Your task to perform on an android device: What's the weather today? Image 0: 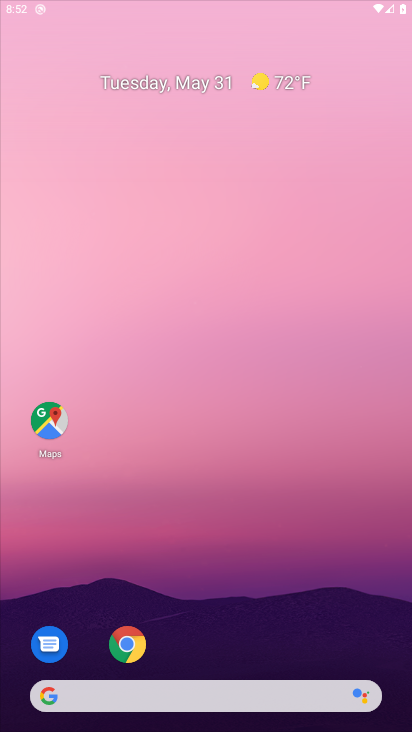
Step 0: press home button
Your task to perform on an android device: What's the weather today? Image 1: 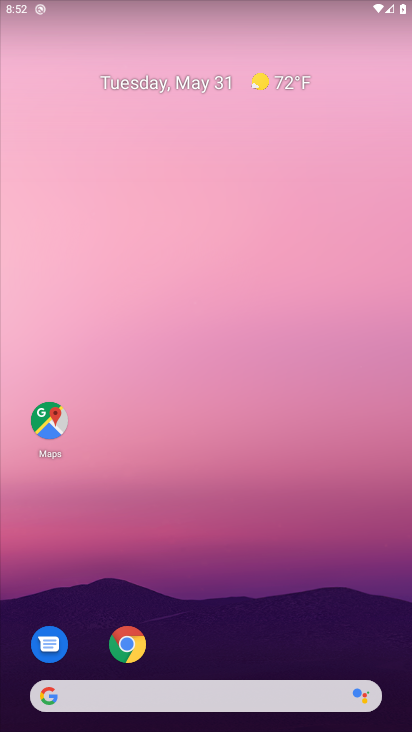
Step 1: click (290, 85)
Your task to perform on an android device: What's the weather today? Image 2: 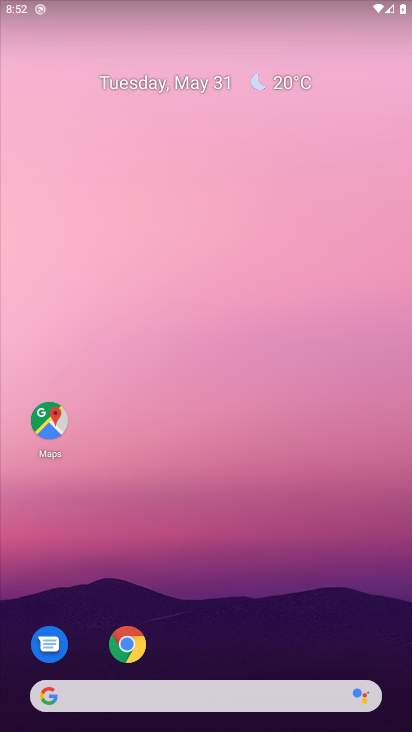
Step 2: click (280, 77)
Your task to perform on an android device: What's the weather today? Image 3: 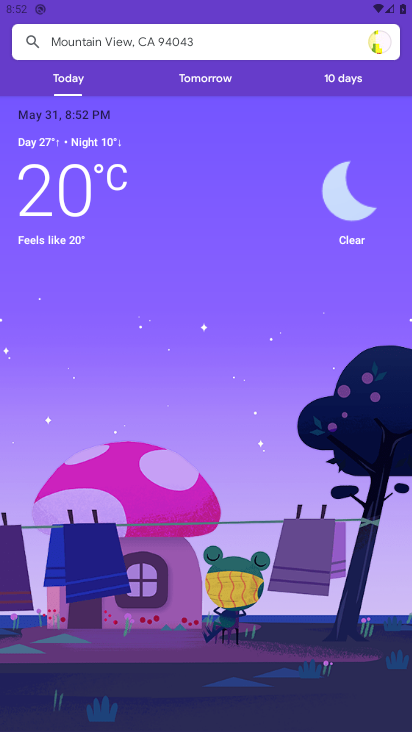
Step 3: task complete